Your task to perform on an android device: Search for Mexican restaurants on Maps Image 0: 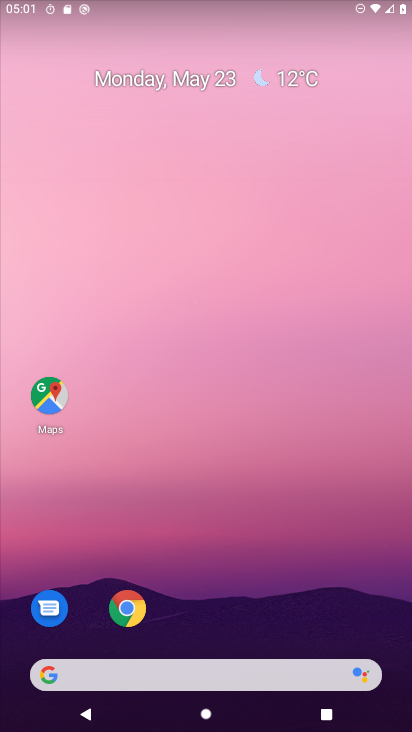
Step 0: click (48, 391)
Your task to perform on an android device: Search for Mexican restaurants on Maps Image 1: 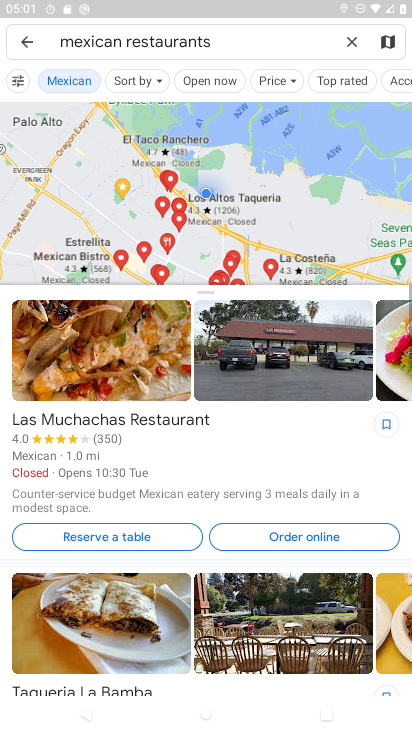
Step 1: task complete